Your task to perform on an android device: Open Reddit.com Image 0: 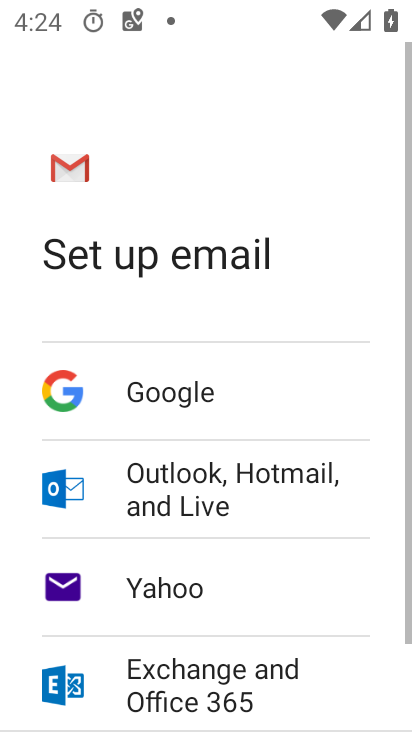
Step 0: press home button
Your task to perform on an android device: Open Reddit.com Image 1: 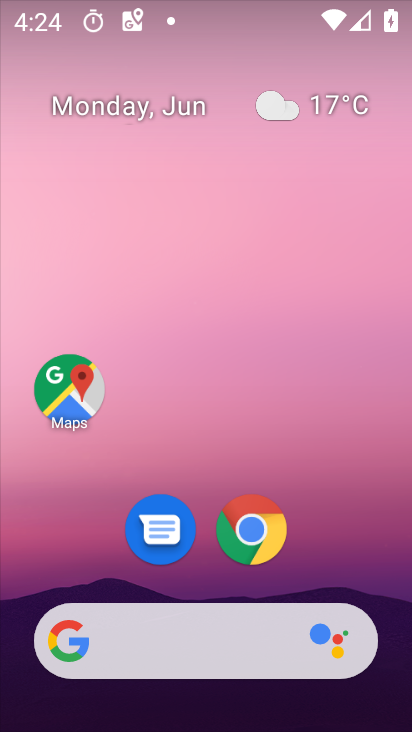
Step 1: click (254, 526)
Your task to perform on an android device: Open Reddit.com Image 2: 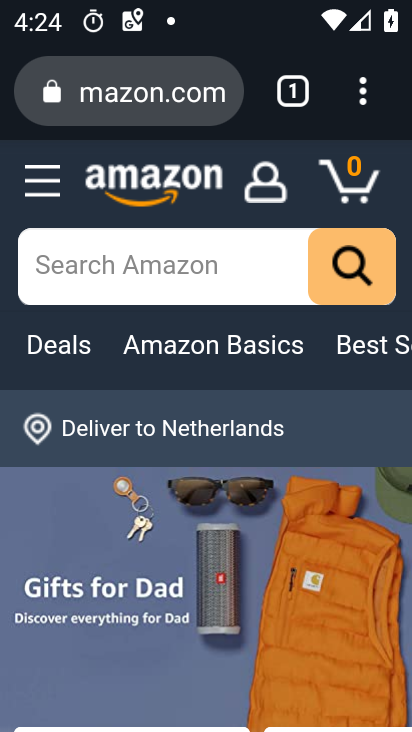
Step 2: click (164, 101)
Your task to perform on an android device: Open Reddit.com Image 3: 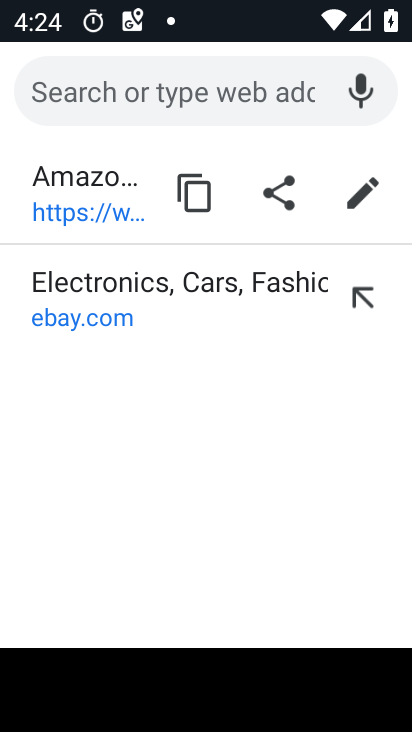
Step 3: type "Reddit.com"
Your task to perform on an android device: Open Reddit.com Image 4: 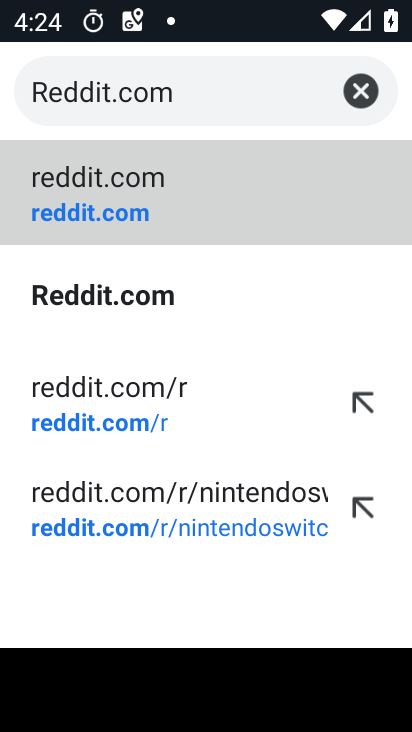
Step 4: click (71, 292)
Your task to perform on an android device: Open Reddit.com Image 5: 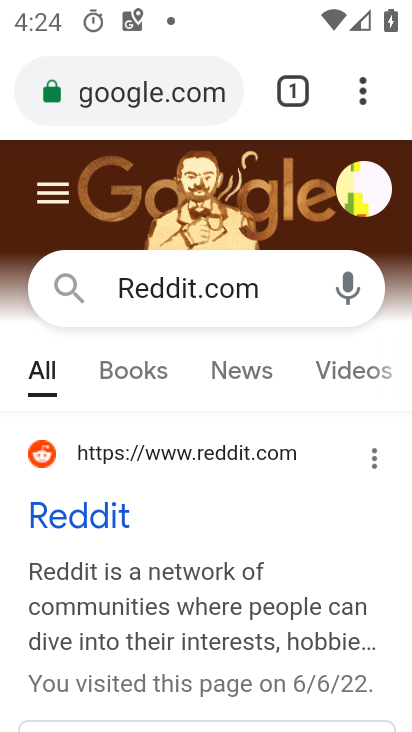
Step 5: click (96, 492)
Your task to perform on an android device: Open Reddit.com Image 6: 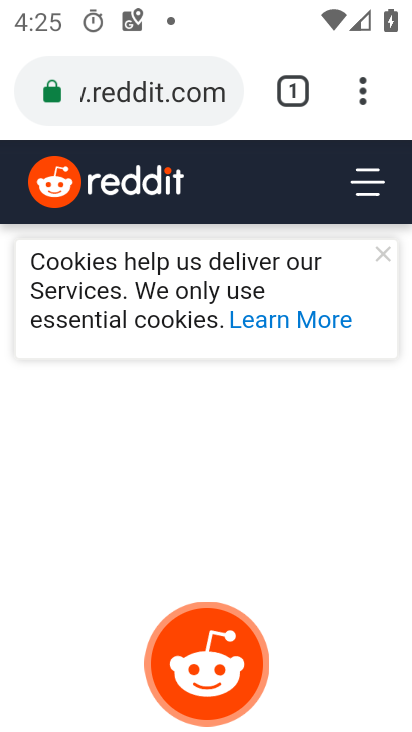
Step 6: drag from (274, 558) to (338, 335)
Your task to perform on an android device: Open Reddit.com Image 7: 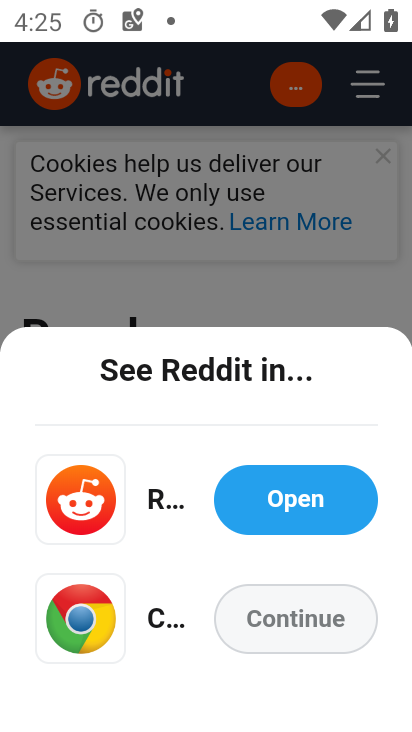
Step 7: click (285, 609)
Your task to perform on an android device: Open Reddit.com Image 8: 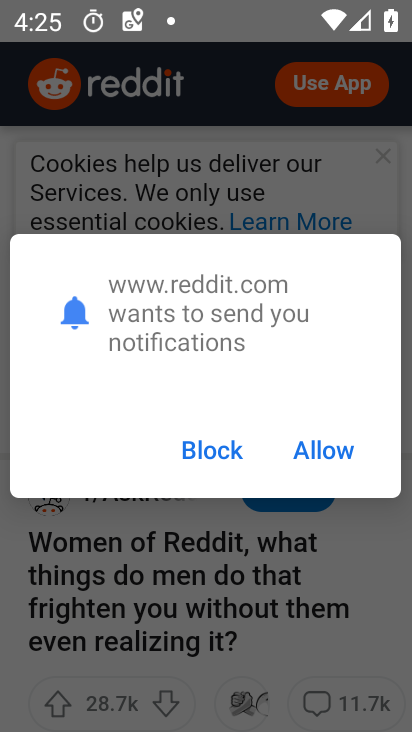
Step 8: click (313, 452)
Your task to perform on an android device: Open Reddit.com Image 9: 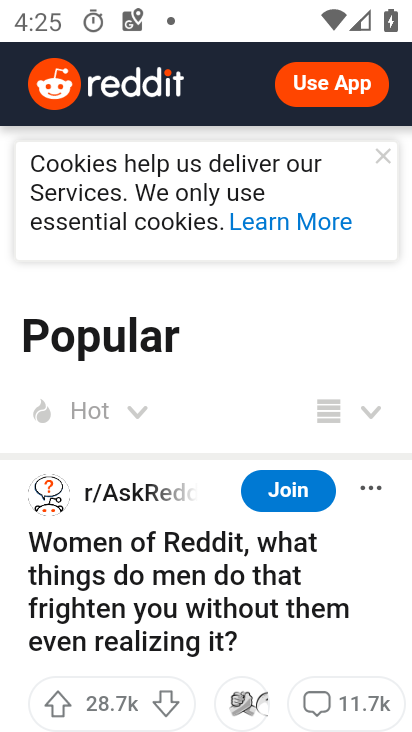
Step 9: task complete